Your task to perform on an android device: Open Google Image 0: 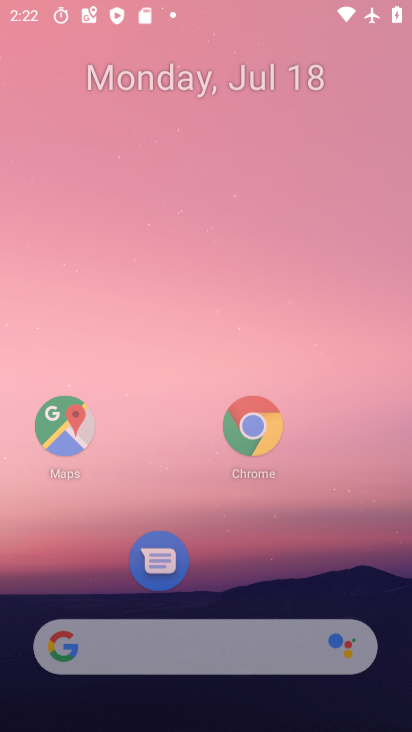
Step 0: press home button
Your task to perform on an android device: Open Google Image 1: 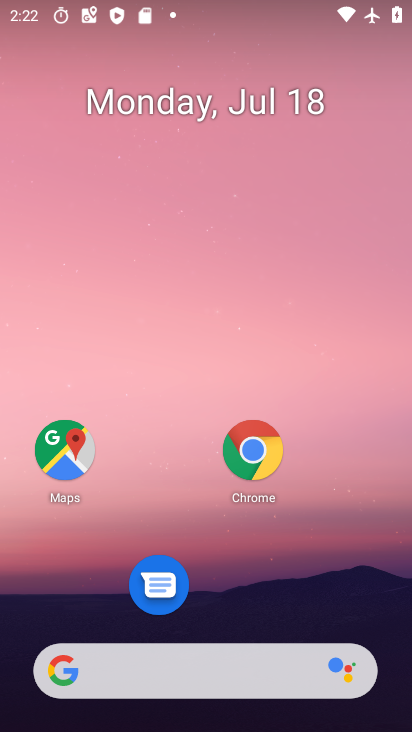
Step 1: drag from (220, 639) to (343, 142)
Your task to perform on an android device: Open Google Image 2: 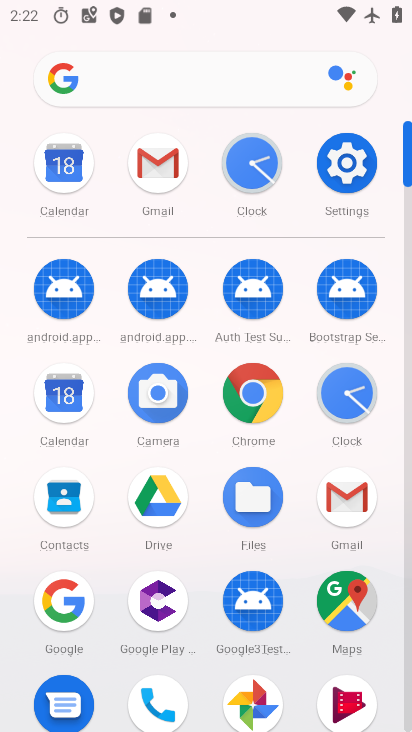
Step 2: click (62, 607)
Your task to perform on an android device: Open Google Image 3: 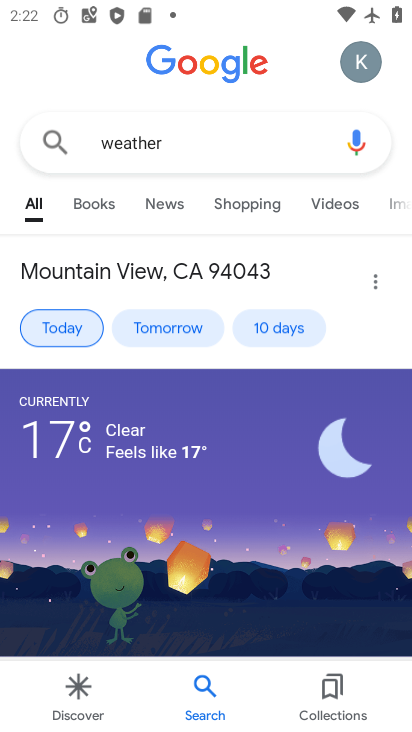
Step 3: task complete